Your task to perform on an android device: Open Maps and search for coffee Image 0: 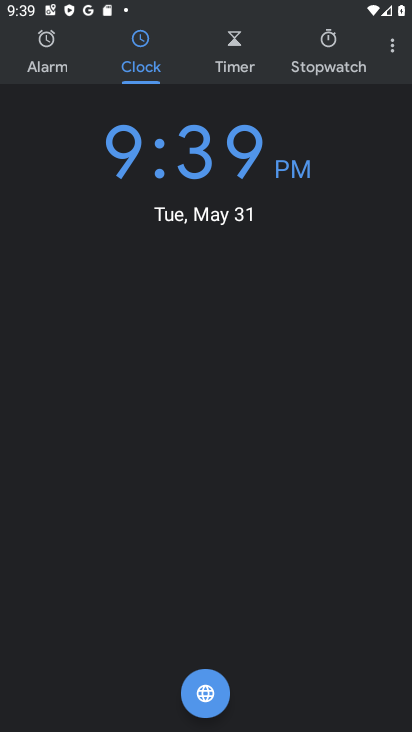
Step 0: press home button
Your task to perform on an android device: Open Maps and search for coffee Image 1: 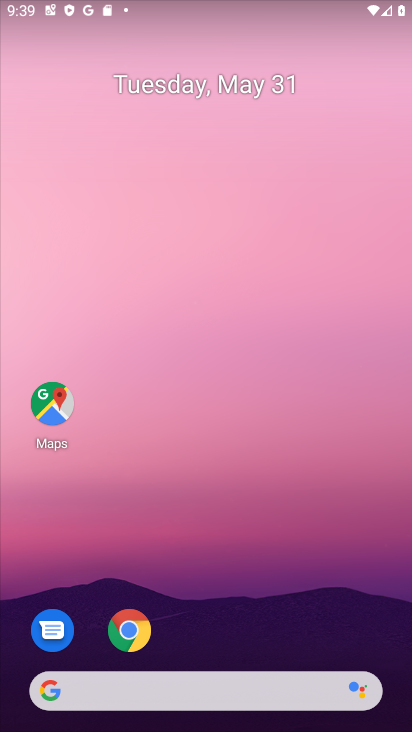
Step 1: click (53, 412)
Your task to perform on an android device: Open Maps and search for coffee Image 2: 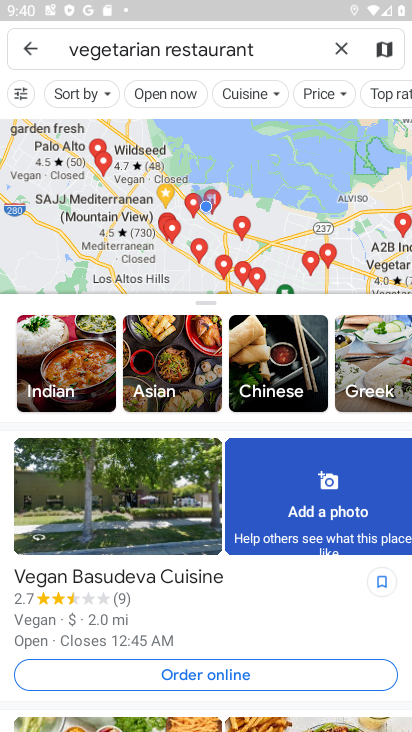
Step 2: click (336, 48)
Your task to perform on an android device: Open Maps and search for coffee Image 3: 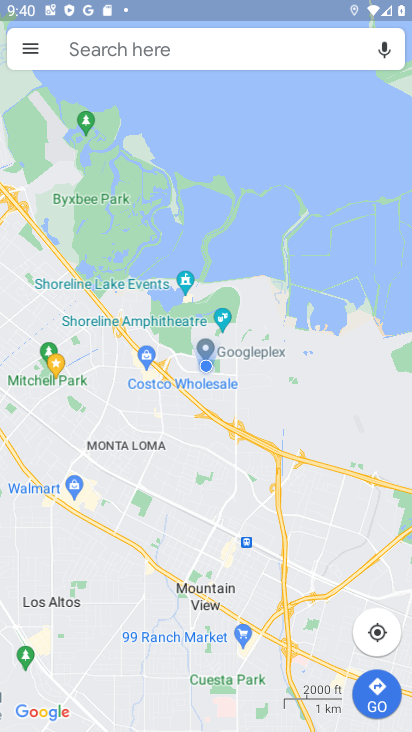
Step 3: click (278, 46)
Your task to perform on an android device: Open Maps and search for coffee Image 4: 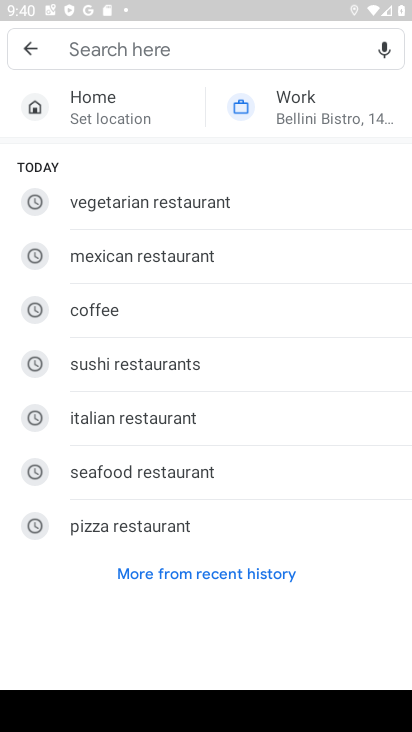
Step 4: click (130, 303)
Your task to perform on an android device: Open Maps and search for coffee Image 5: 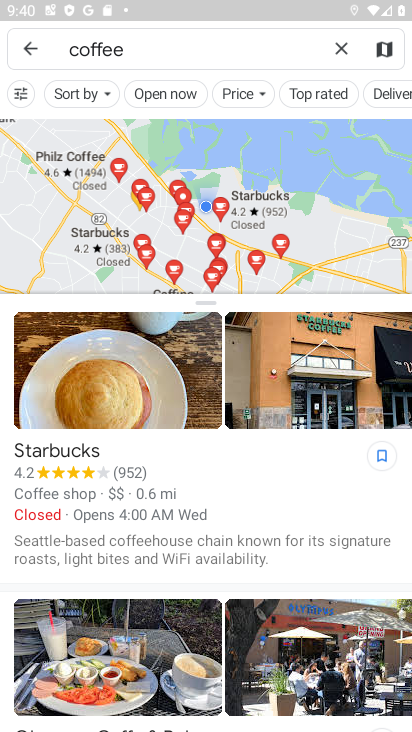
Step 5: task complete